Your task to perform on an android device: Open calendar and show me the first week of next month Image 0: 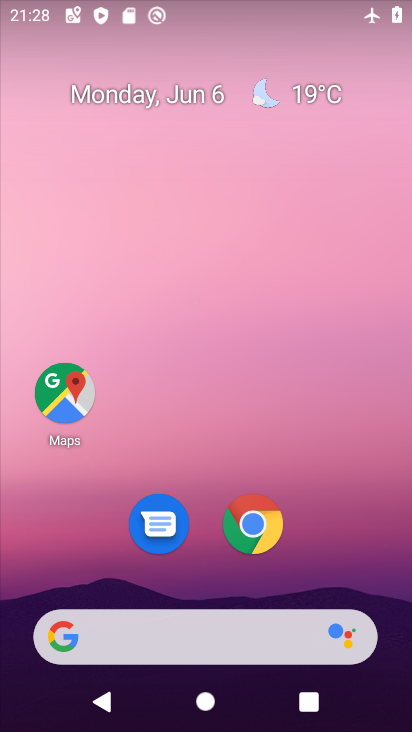
Step 0: drag from (316, 531) to (302, 39)
Your task to perform on an android device: Open calendar and show me the first week of next month Image 1: 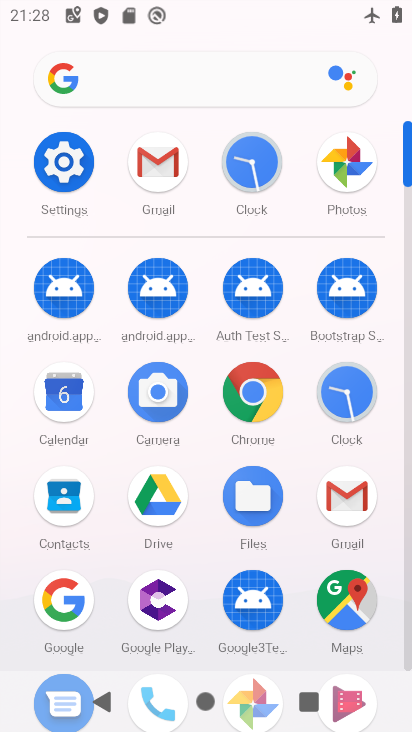
Step 1: click (53, 393)
Your task to perform on an android device: Open calendar and show me the first week of next month Image 2: 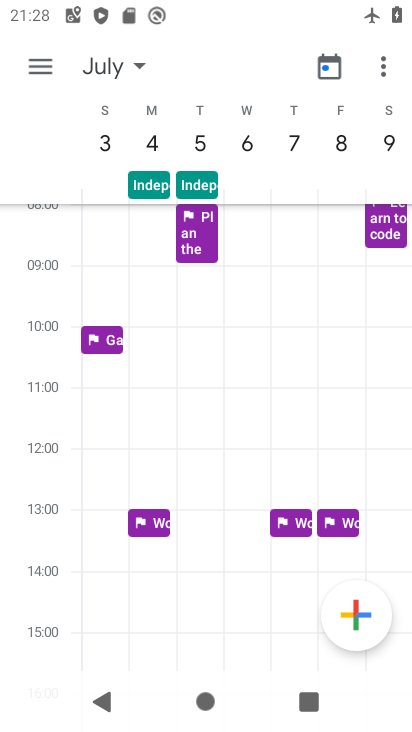
Step 2: task complete